Your task to perform on an android device: Is it going to rain tomorrow? Image 0: 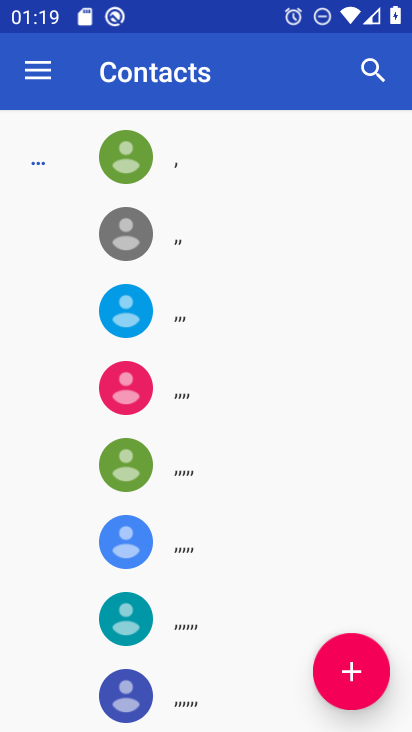
Step 0: click (17, 728)
Your task to perform on an android device: Is it going to rain tomorrow? Image 1: 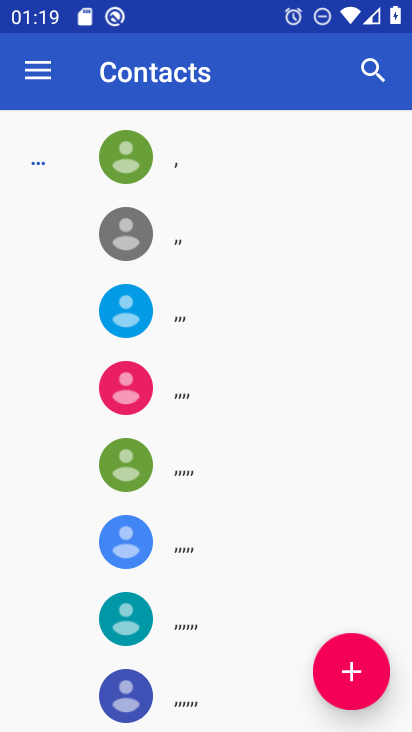
Step 1: press home button
Your task to perform on an android device: Is it going to rain tomorrow? Image 2: 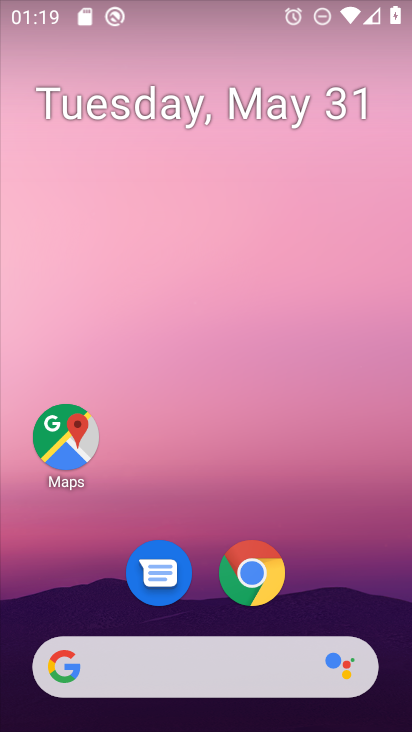
Step 2: click (168, 681)
Your task to perform on an android device: Is it going to rain tomorrow? Image 3: 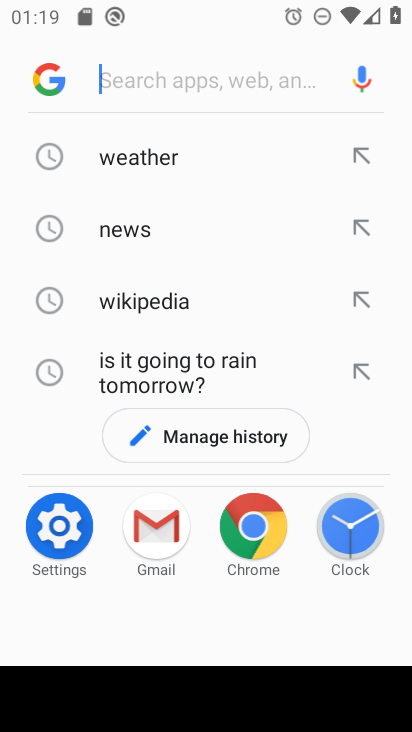
Step 3: type "Is it going to rain tomorrow?"
Your task to perform on an android device: Is it going to rain tomorrow? Image 4: 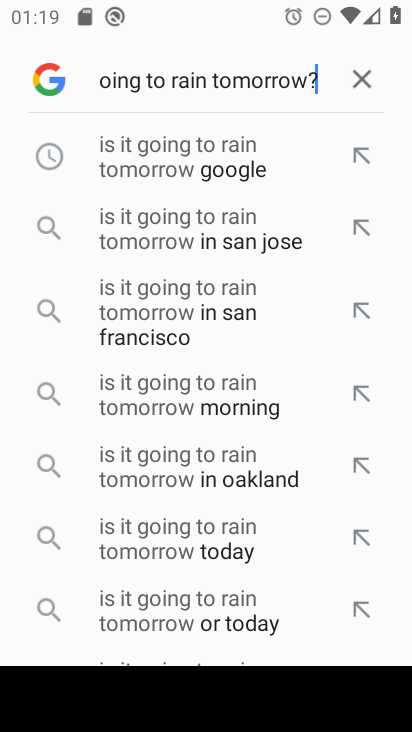
Step 4: click (256, 130)
Your task to perform on an android device: Is it going to rain tomorrow? Image 5: 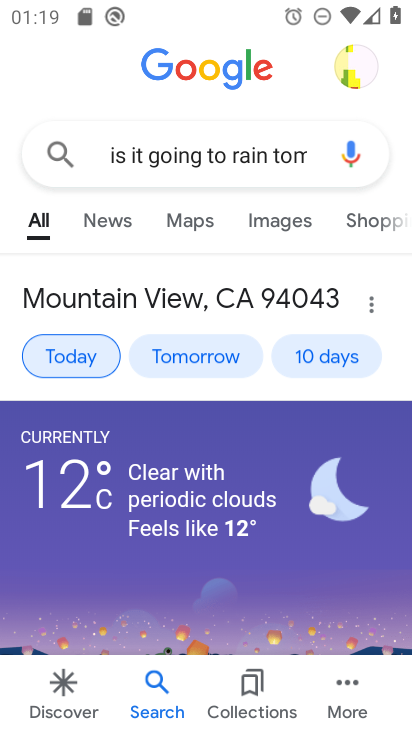
Step 5: task complete